Your task to perform on an android device: delete browsing data in the chrome app Image 0: 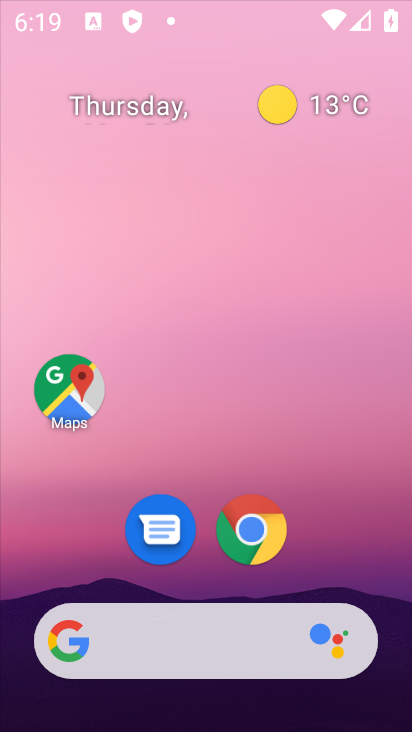
Step 0: drag from (312, 663) to (313, 12)
Your task to perform on an android device: delete browsing data in the chrome app Image 1: 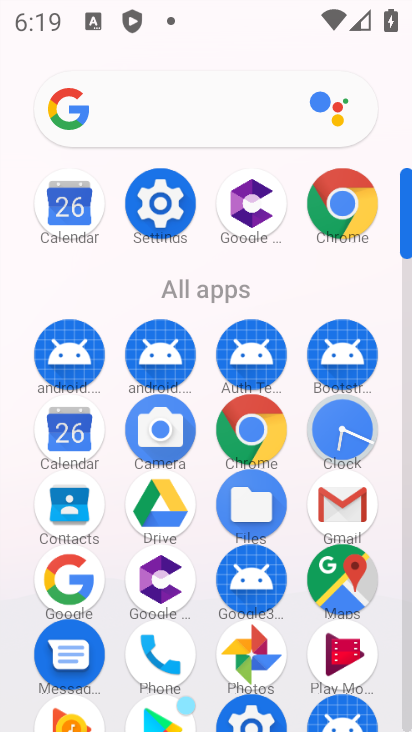
Step 1: click (246, 422)
Your task to perform on an android device: delete browsing data in the chrome app Image 2: 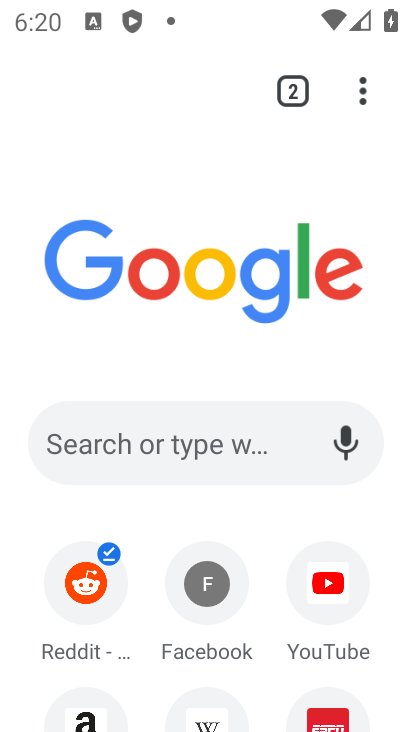
Step 2: drag from (362, 87) to (151, 557)
Your task to perform on an android device: delete browsing data in the chrome app Image 3: 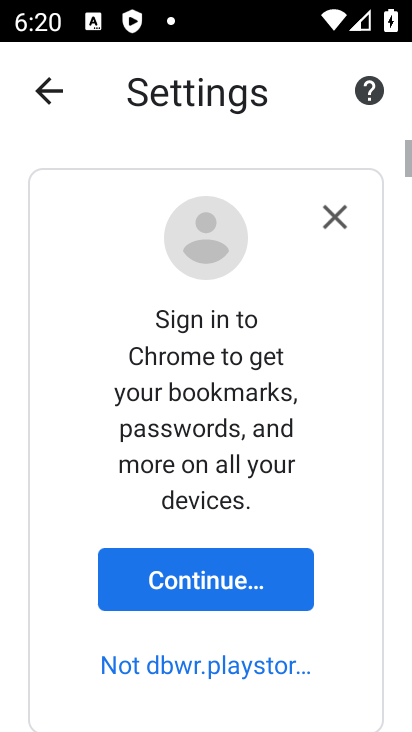
Step 3: drag from (255, 675) to (277, 0)
Your task to perform on an android device: delete browsing data in the chrome app Image 4: 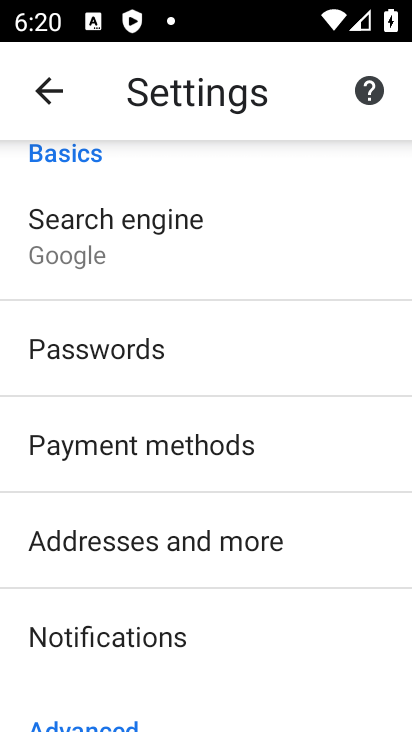
Step 4: drag from (205, 662) to (259, 138)
Your task to perform on an android device: delete browsing data in the chrome app Image 5: 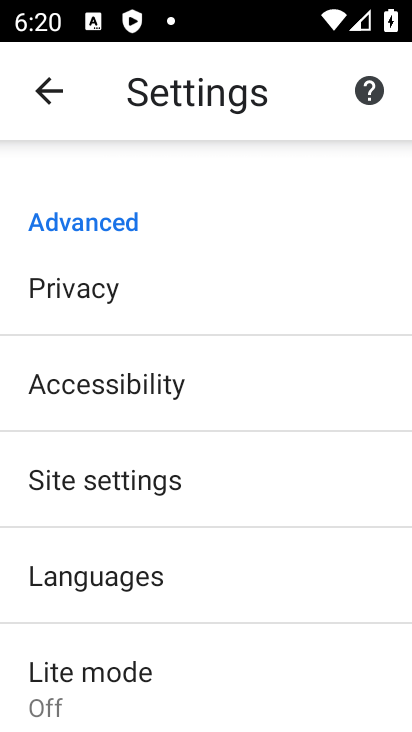
Step 5: drag from (236, 702) to (291, 126)
Your task to perform on an android device: delete browsing data in the chrome app Image 6: 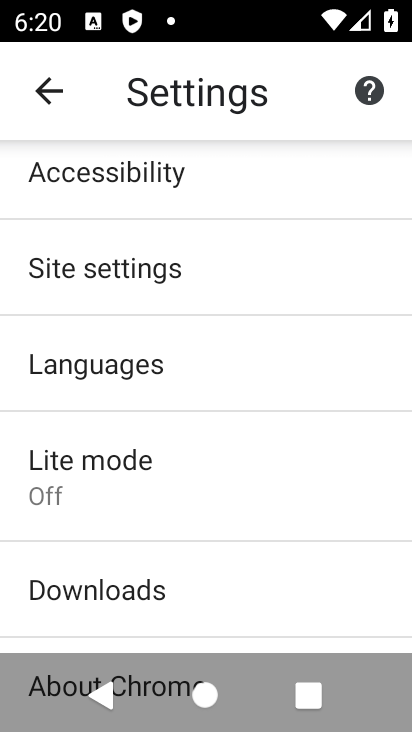
Step 6: drag from (223, 596) to (250, 241)
Your task to perform on an android device: delete browsing data in the chrome app Image 7: 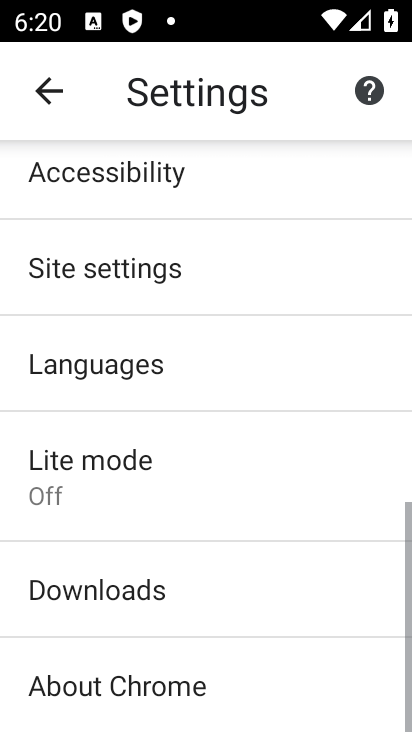
Step 7: drag from (174, 227) to (132, 563)
Your task to perform on an android device: delete browsing data in the chrome app Image 8: 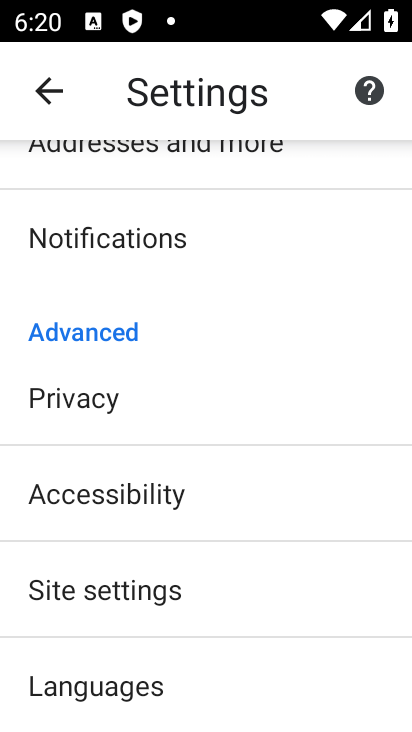
Step 8: click (122, 429)
Your task to perform on an android device: delete browsing data in the chrome app Image 9: 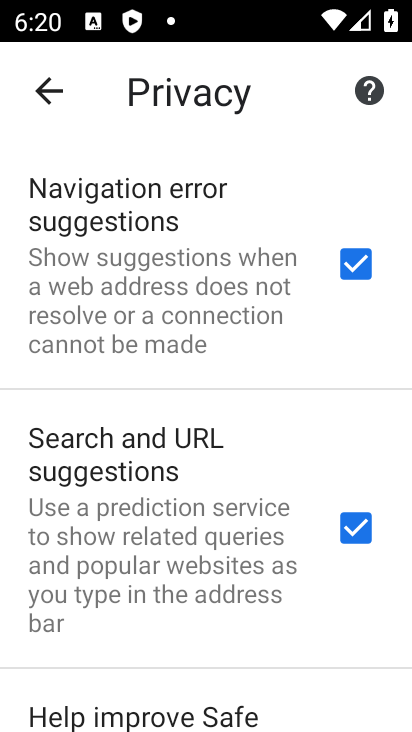
Step 9: drag from (204, 630) to (278, 164)
Your task to perform on an android device: delete browsing data in the chrome app Image 10: 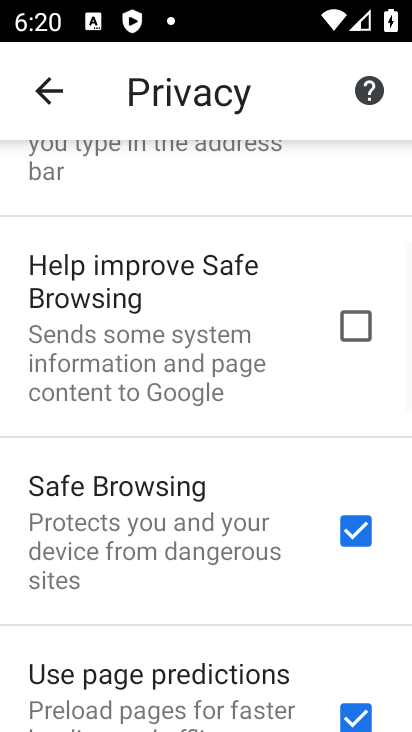
Step 10: drag from (240, 659) to (316, 221)
Your task to perform on an android device: delete browsing data in the chrome app Image 11: 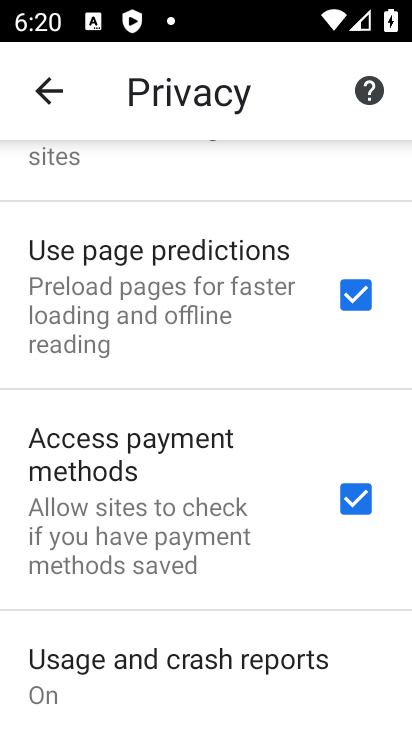
Step 11: drag from (279, 679) to (315, 214)
Your task to perform on an android device: delete browsing data in the chrome app Image 12: 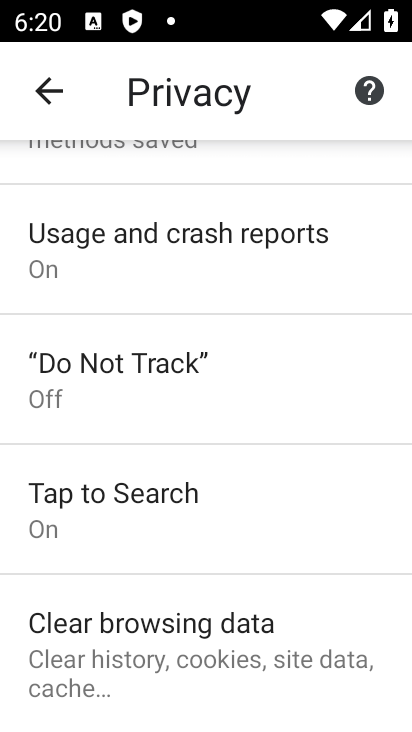
Step 12: click (227, 683)
Your task to perform on an android device: delete browsing data in the chrome app Image 13: 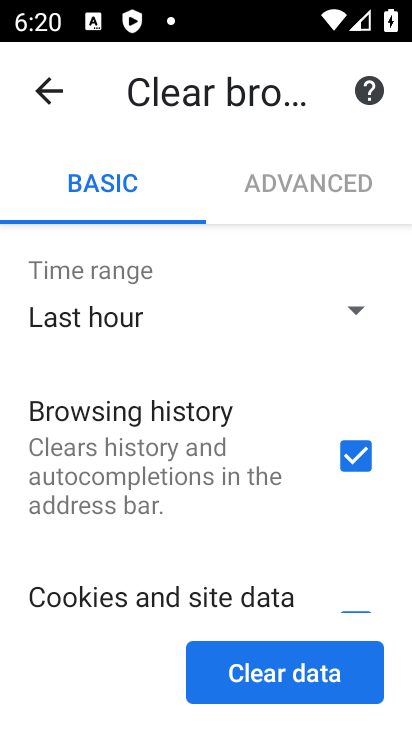
Step 13: click (260, 664)
Your task to perform on an android device: delete browsing data in the chrome app Image 14: 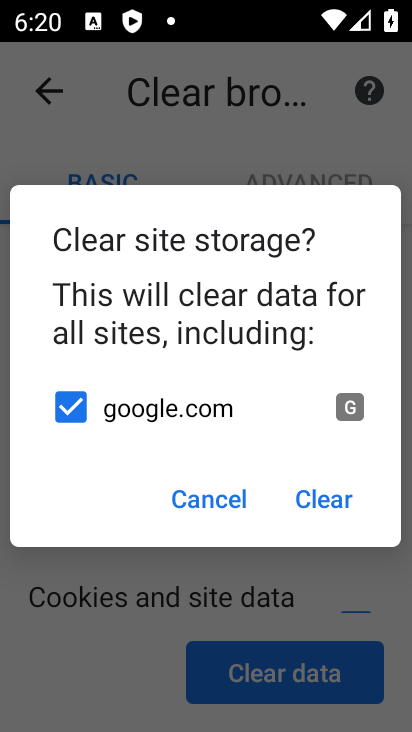
Step 14: click (332, 507)
Your task to perform on an android device: delete browsing data in the chrome app Image 15: 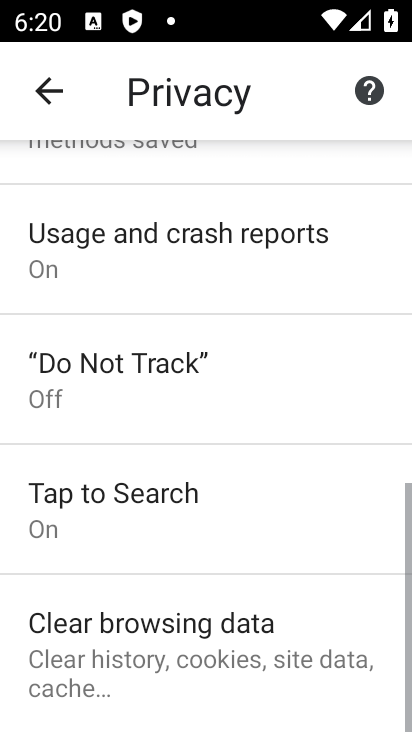
Step 15: task complete